Your task to perform on an android device: Go to network settings Image 0: 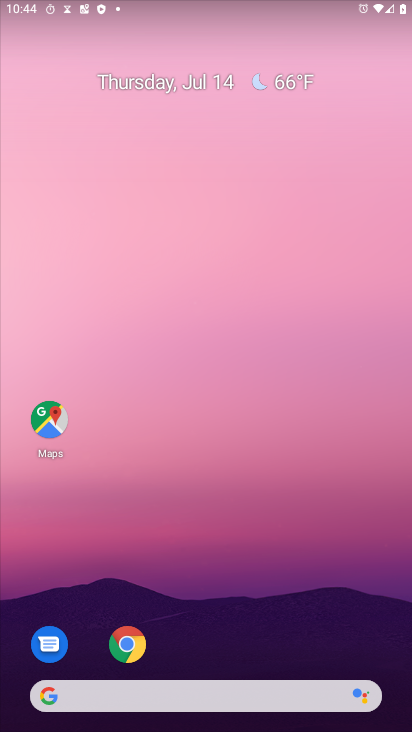
Step 0: drag from (224, 452) to (210, 317)
Your task to perform on an android device: Go to network settings Image 1: 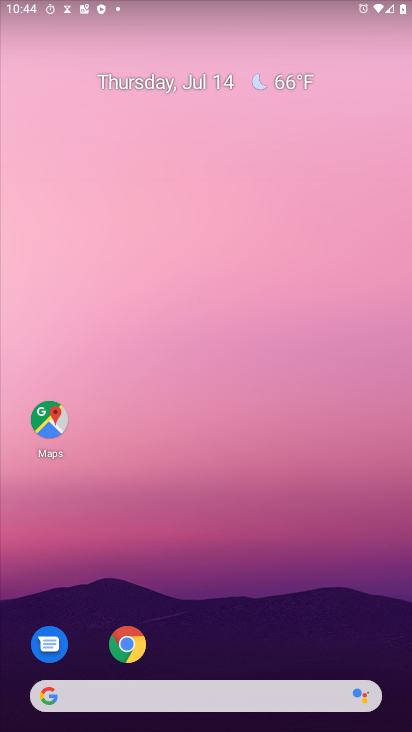
Step 1: drag from (240, 600) to (239, 266)
Your task to perform on an android device: Go to network settings Image 2: 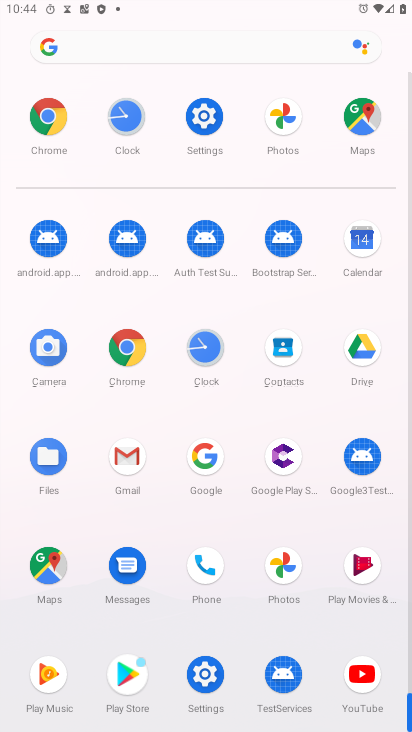
Step 2: click (207, 111)
Your task to perform on an android device: Go to network settings Image 3: 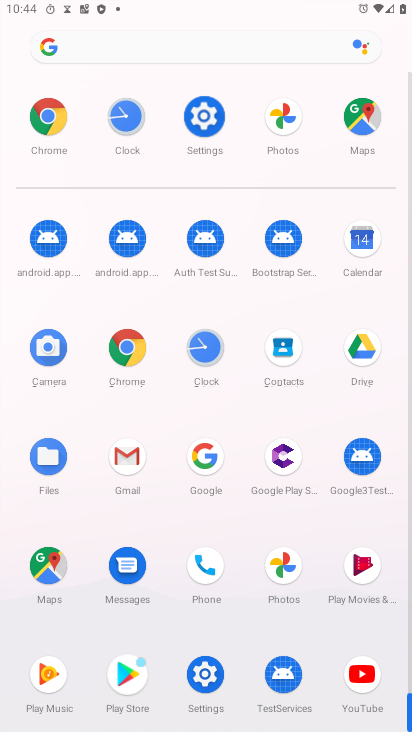
Step 3: click (207, 111)
Your task to perform on an android device: Go to network settings Image 4: 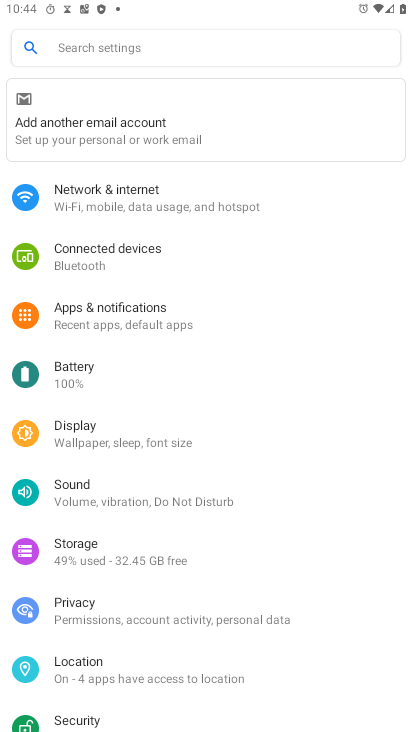
Step 4: click (121, 209)
Your task to perform on an android device: Go to network settings Image 5: 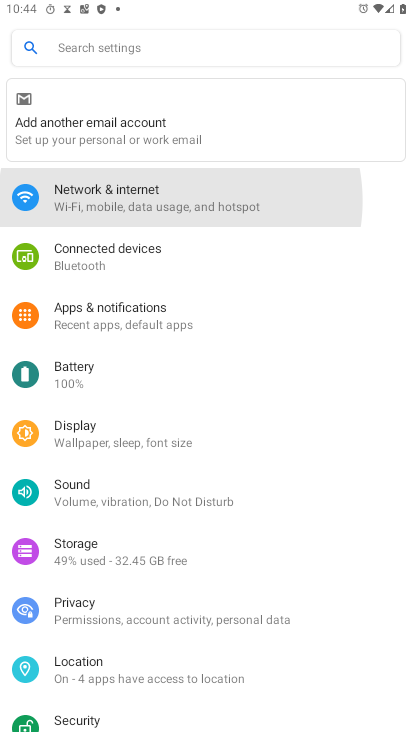
Step 5: click (121, 208)
Your task to perform on an android device: Go to network settings Image 6: 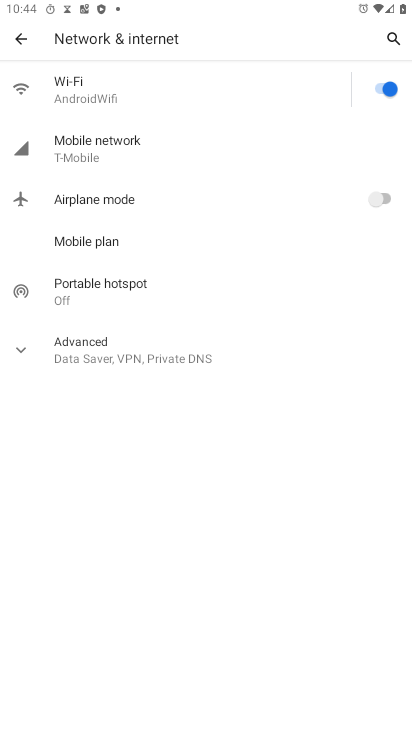
Step 6: task complete